Your task to perform on an android device: Open Wikipedia Image 0: 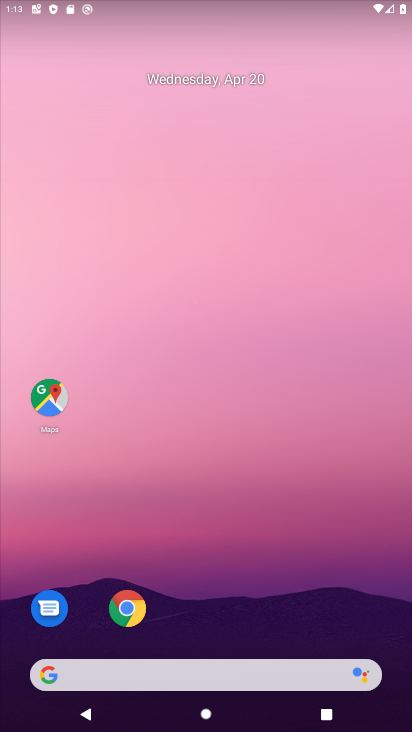
Step 0: click (127, 605)
Your task to perform on an android device: Open Wikipedia Image 1: 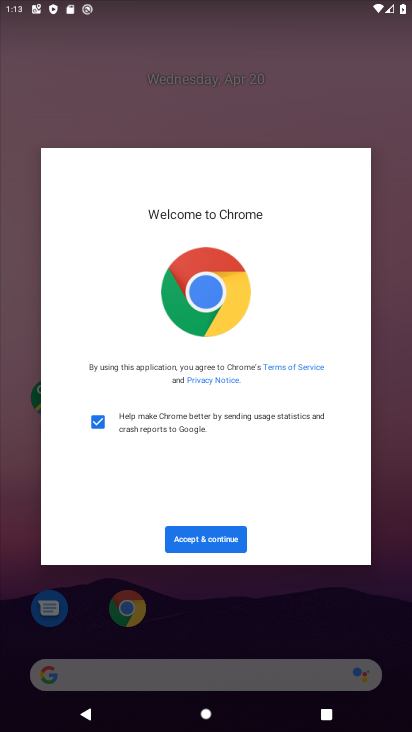
Step 1: click (208, 537)
Your task to perform on an android device: Open Wikipedia Image 2: 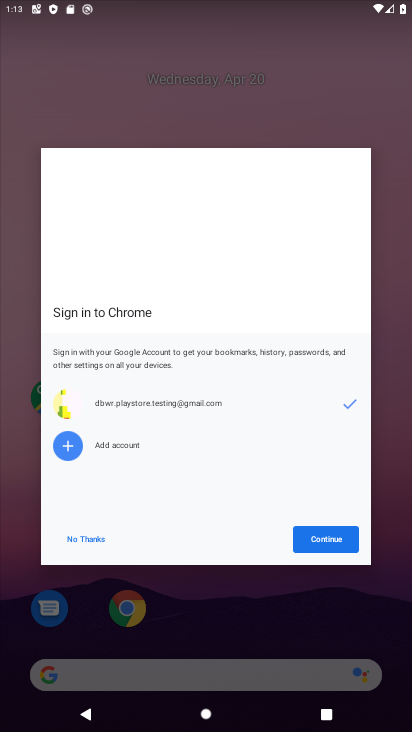
Step 2: click (326, 536)
Your task to perform on an android device: Open Wikipedia Image 3: 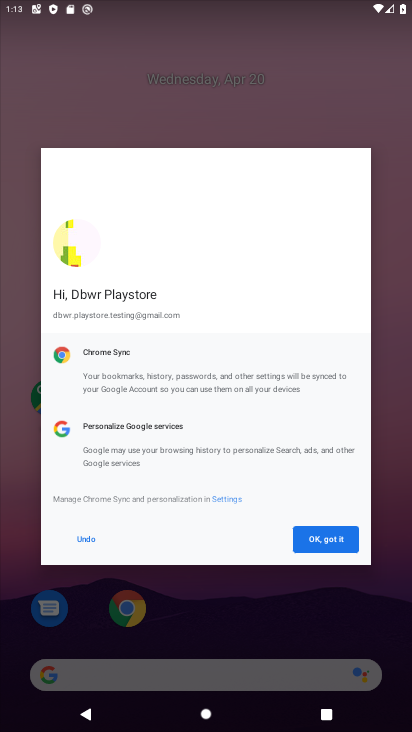
Step 3: click (326, 536)
Your task to perform on an android device: Open Wikipedia Image 4: 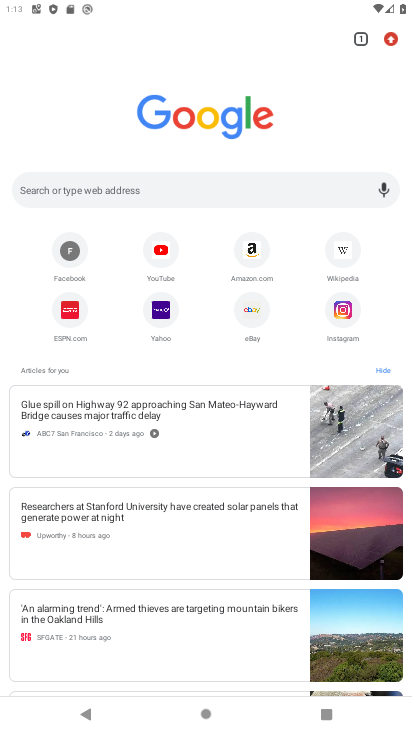
Step 4: click (344, 249)
Your task to perform on an android device: Open Wikipedia Image 5: 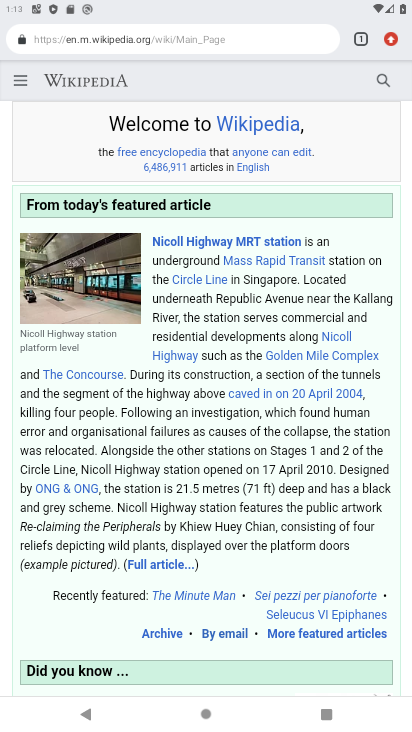
Step 5: task complete